Your task to perform on an android device: Open Reddit.com Image 0: 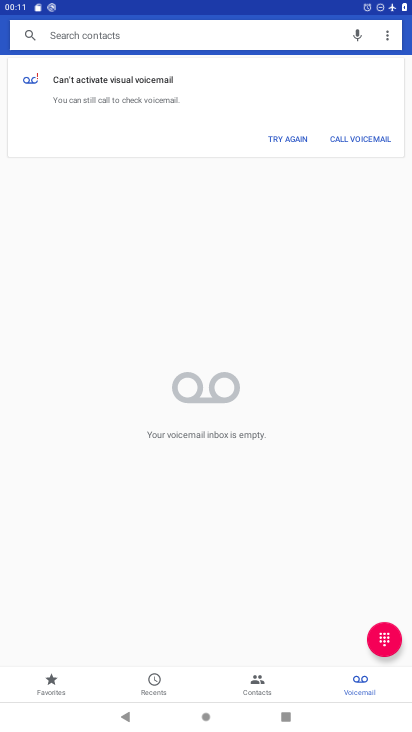
Step 0: press home button
Your task to perform on an android device: Open Reddit.com Image 1: 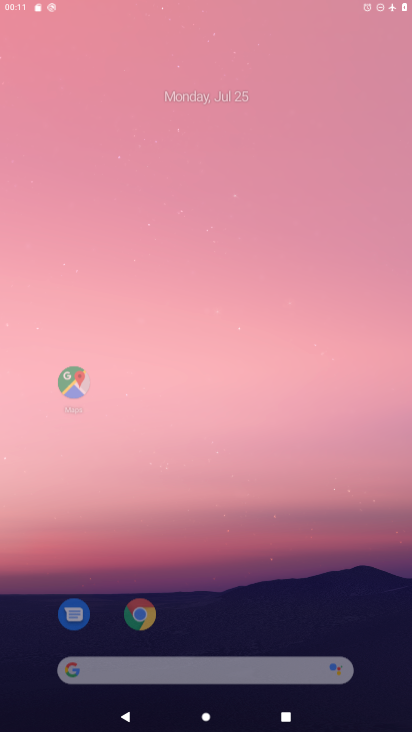
Step 1: drag from (249, 563) to (264, 143)
Your task to perform on an android device: Open Reddit.com Image 2: 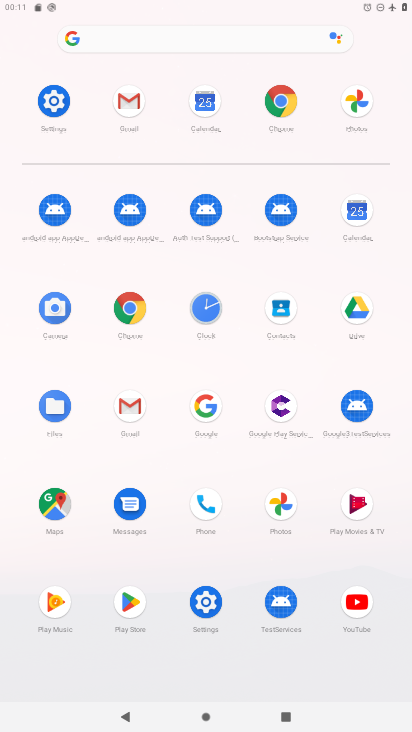
Step 2: click (126, 31)
Your task to perform on an android device: Open Reddit.com Image 3: 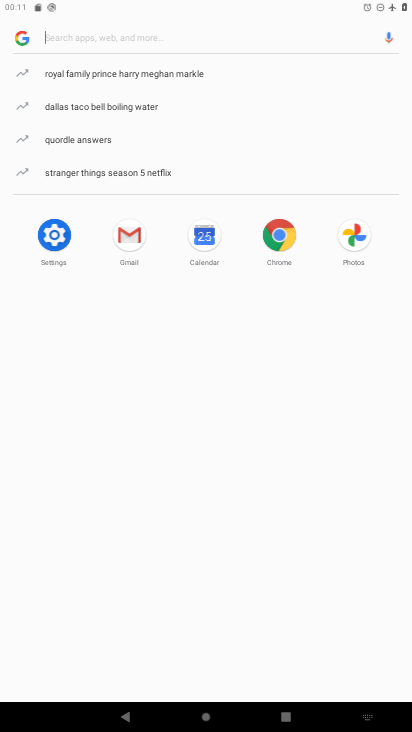
Step 3: type " Reddit.com"
Your task to perform on an android device: Open Reddit.com Image 4: 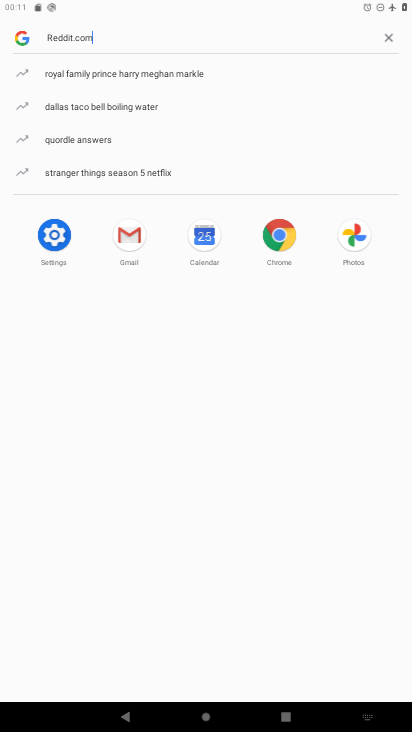
Step 4: type ""
Your task to perform on an android device: Open Reddit.com Image 5: 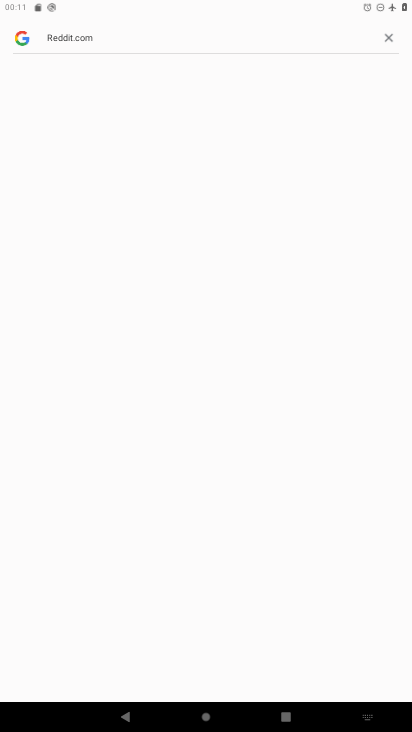
Step 5: click (154, 128)
Your task to perform on an android device: Open Reddit.com Image 6: 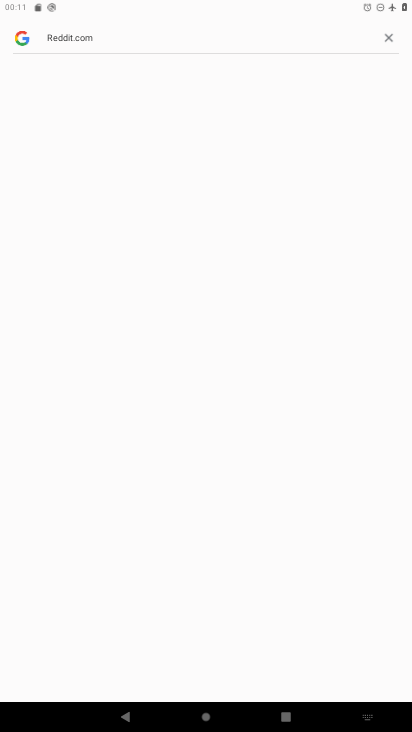
Step 6: click (234, 94)
Your task to perform on an android device: Open Reddit.com Image 7: 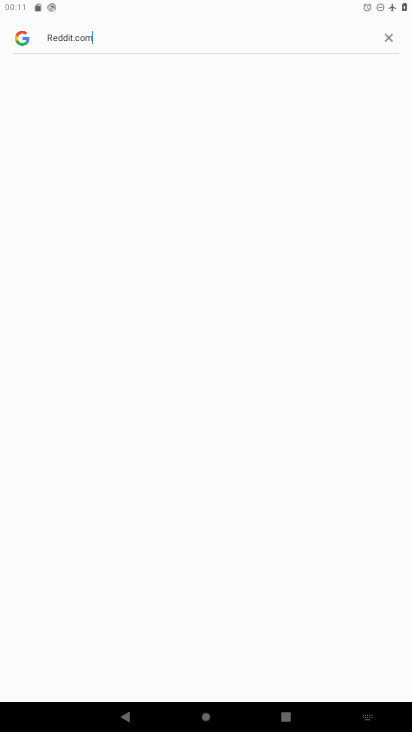
Step 7: task complete